Your task to perform on an android device: Go to battery settings Image 0: 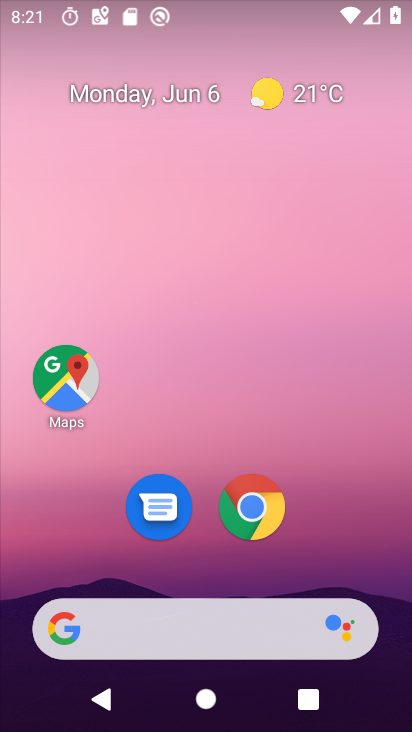
Step 0: drag from (365, 581) to (367, 45)
Your task to perform on an android device: Go to battery settings Image 1: 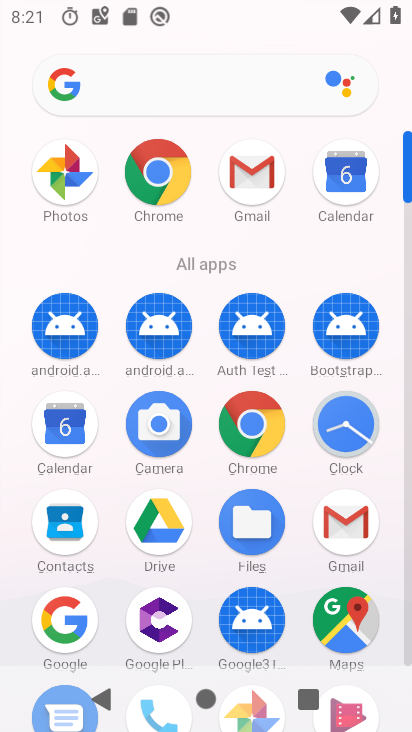
Step 1: drag from (206, 571) to (233, 224)
Your task to perform on an android device: Go to battery settings Image 2: 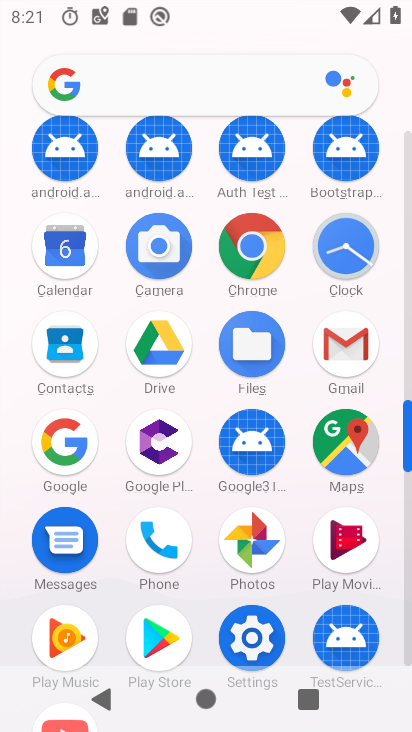
Step 2: click (248, 623)
Your task to perform on an android device: Go to battery settings Image 3: 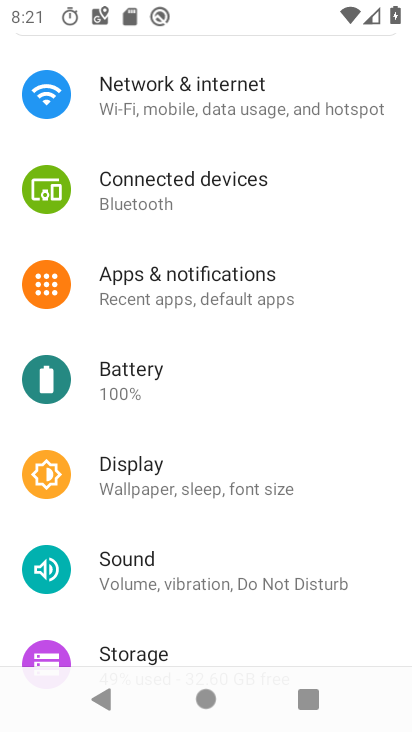
Step 3: click (138, 390)
Your task to perform on an android device: Go to battery settings Image 4: 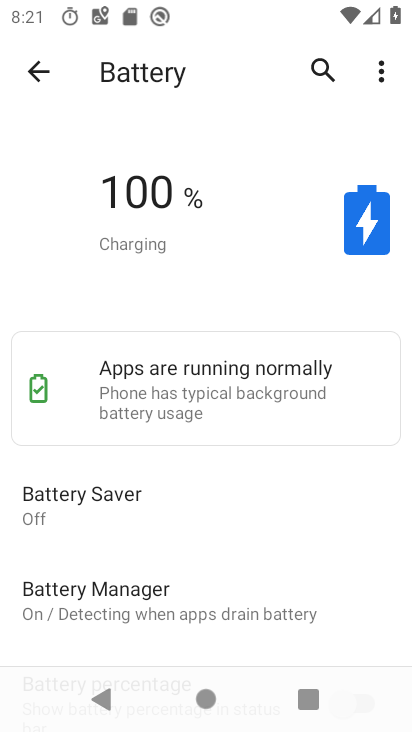
Step 4: task complete